Your task to perform on an android device: Open Android settings Image 0: 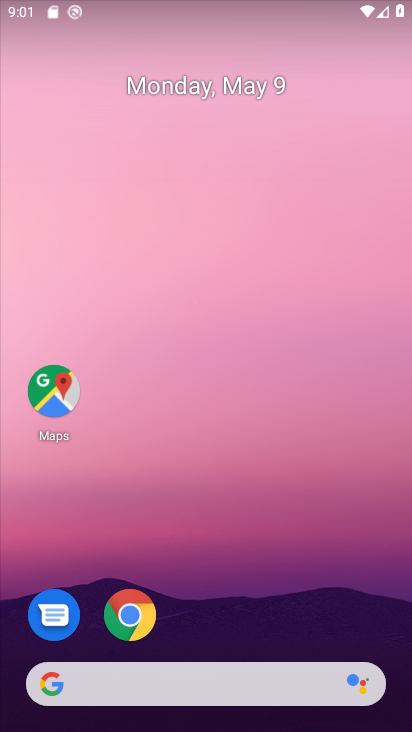
Step 0: drag from (230, 714) to (282, 180)
Your task to perform on an android device: Open Android settings Image 1: 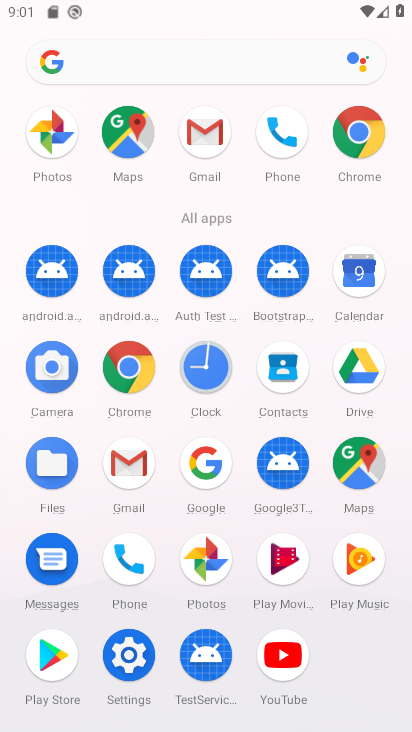
Step 1: click (139, 659)
Your task to perform on an android device: Open Android settings Image 2: 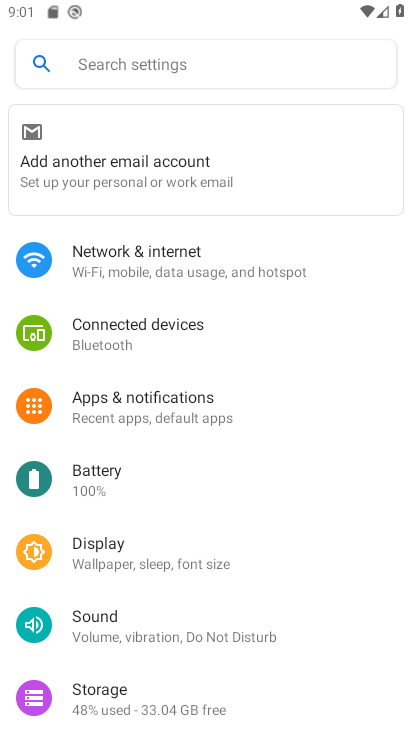
Step 2: click (121, 63)
Your task to perform on an android device: Open Android settings Image 3: 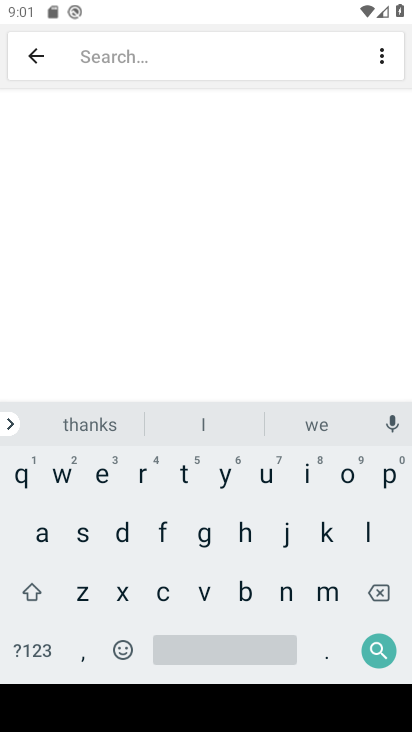
Step 3: click (35, 537)
Your task to perform on an android device: Open Android settings Image 4: 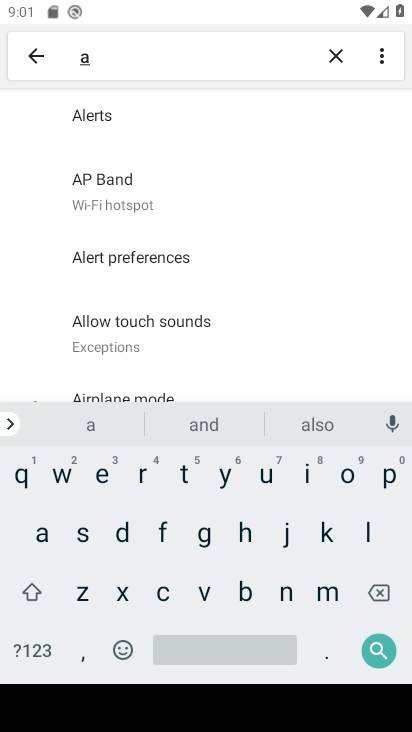
Step 4: click (45, 534)
Your task to perform on an android device: Open Android settings Image 5: 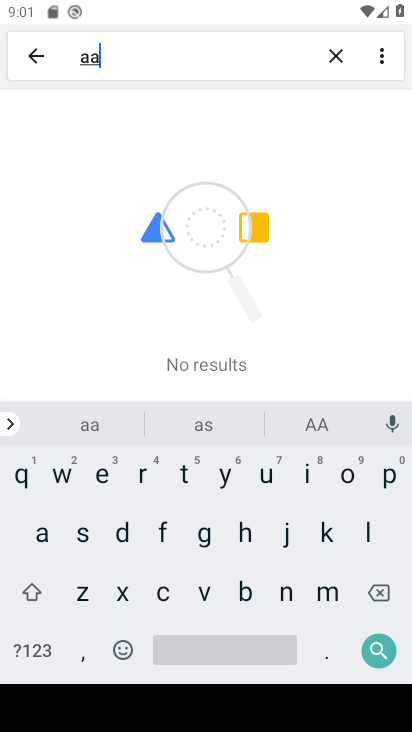
Step 5: click (381, 584)
Your task to perform on an android device: Open Android settings Image 6: 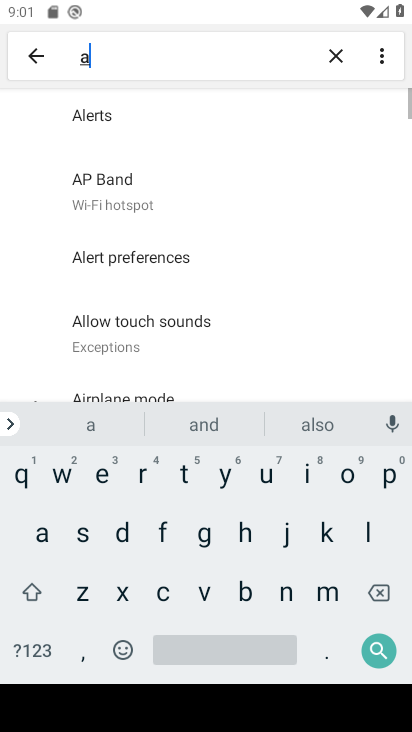
Step 6: click (287, 590)
Your task to perform on an android device: Open Android settings Image 7: 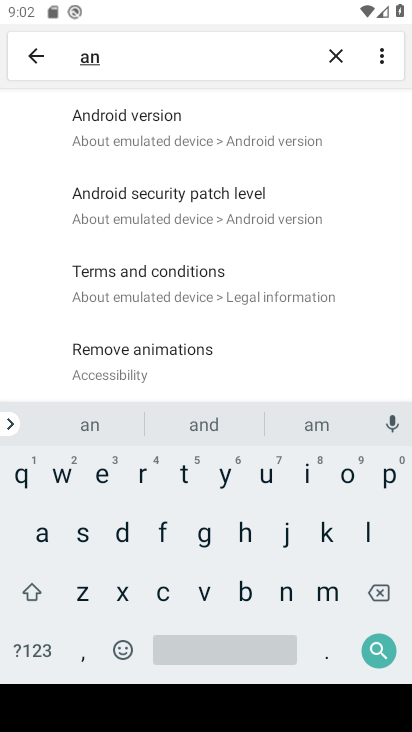
Step 7: click (191, 117)
Your task to perform on an android device: Open Android settings Image 8: 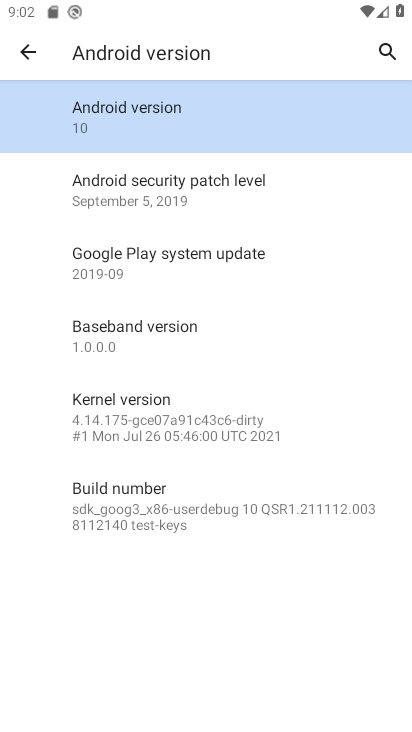
Step 8: click (170, 113)
Your task to perform on an android device: Open Android settings Image 9: 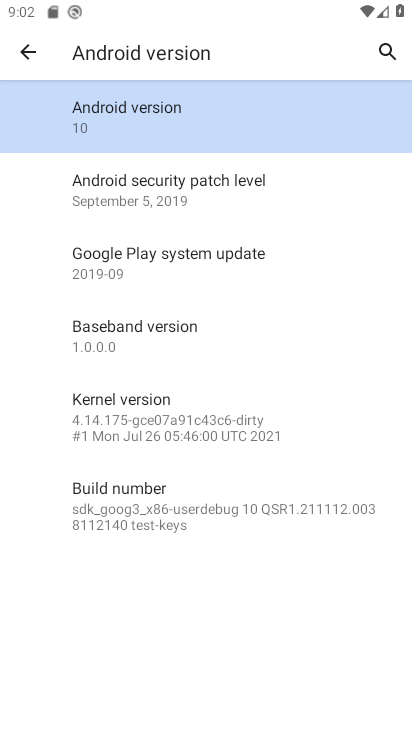
Step 9: click (160, 125)
Your task to perform on an android device: Open Android settings Image 10: 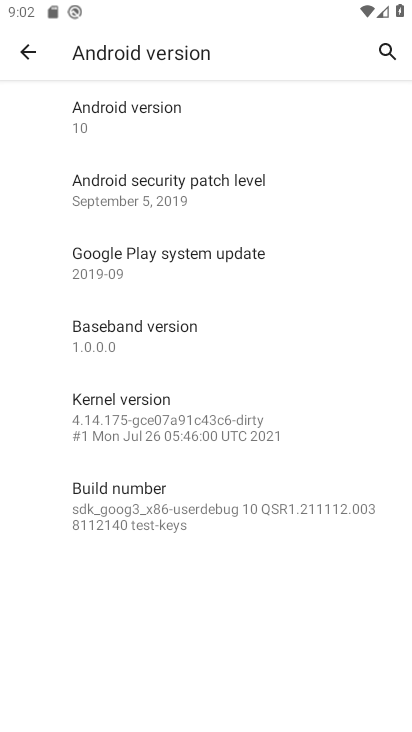
Step 10: task complete